Your task to perform on an android device: Go to Android settings Image 0: 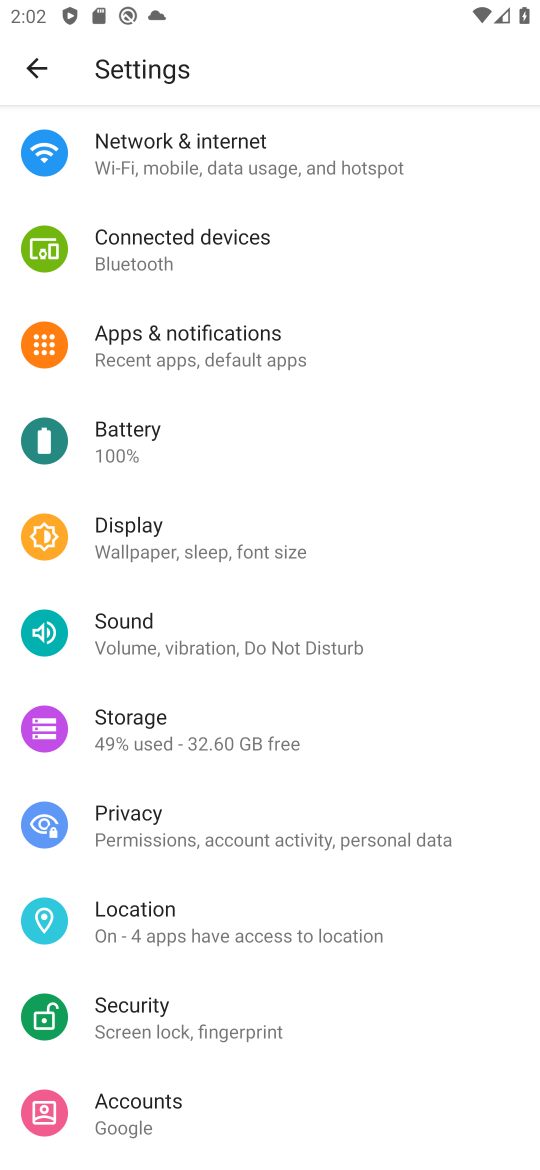
Step 0: drag from (301, 1023) to (320, 171)
Your task to perform on an android device: Go to Android settings Image 1: 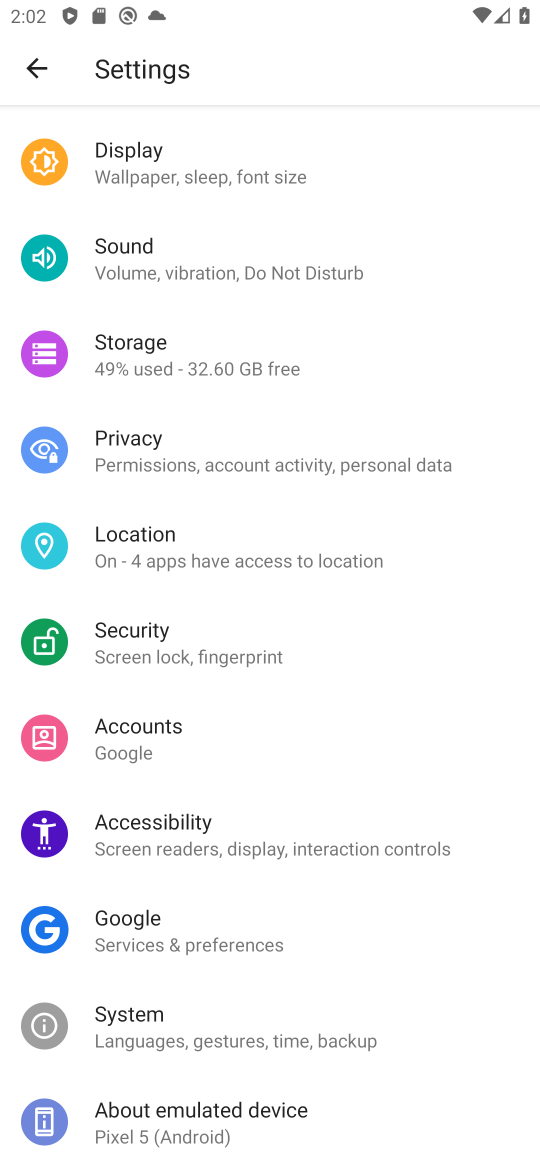
Step 1: drag from (282, 1078) to (375, 355)
Your task to perform on an android device: Go to Android settings Image 2: 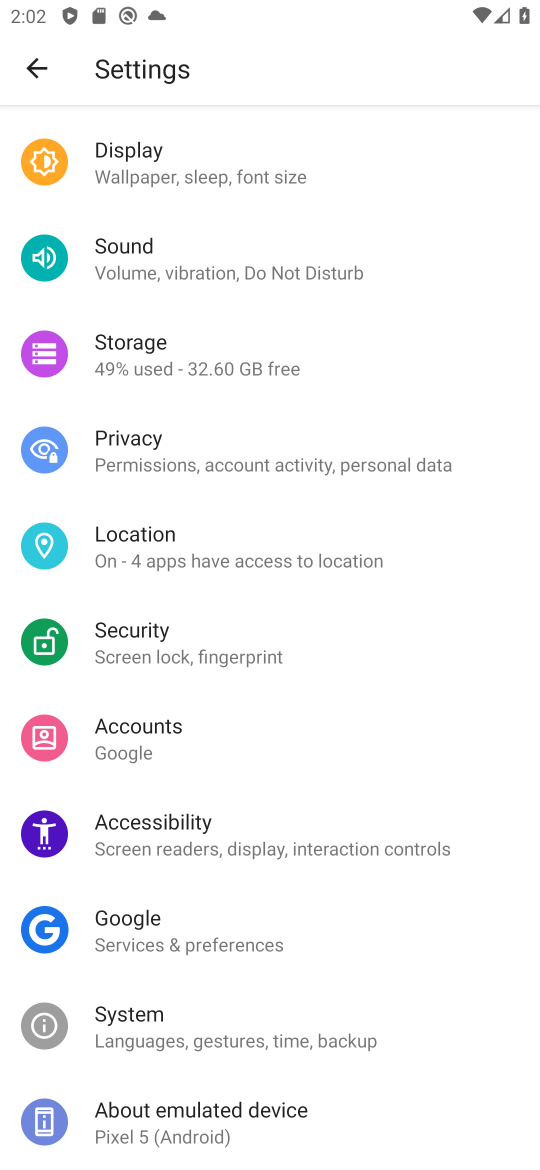
Step 2: click (252, 1122)
Your task to perform on an android device: Go to Android settings Image 3: 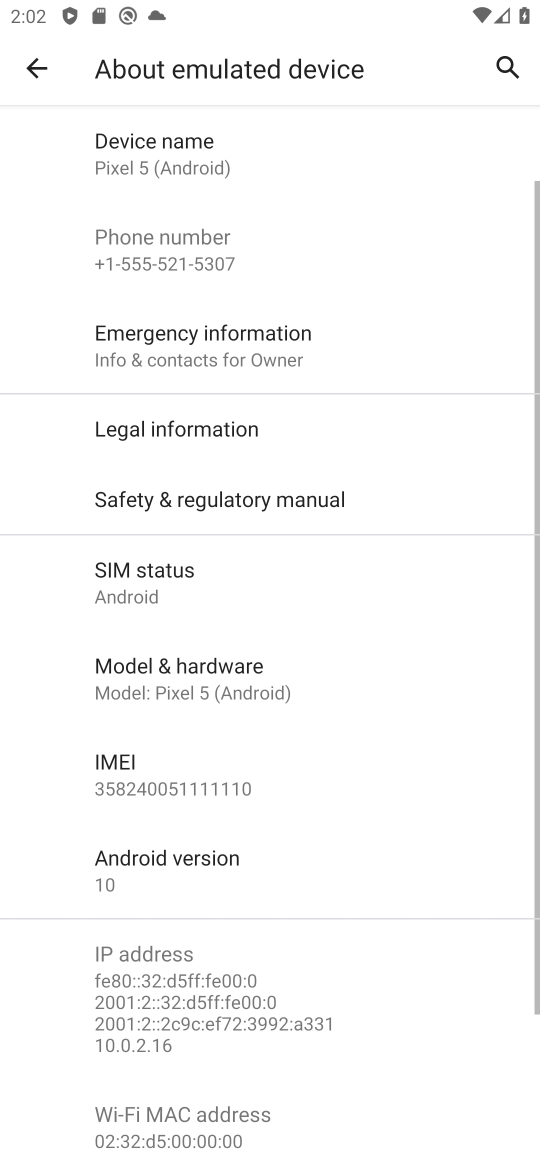
Step 3: task complete